Your task to perform on an android device: Show me popular videos on Youtube Image 0: 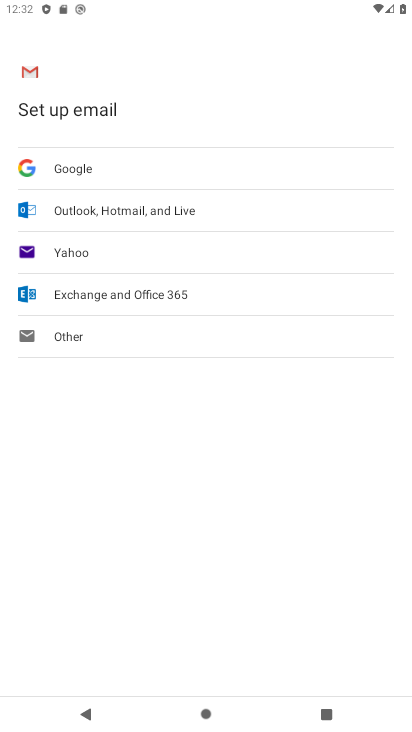
Step 0: press home button
Your task to perform on an android device: Show me popular videos on Youtube Image 1: 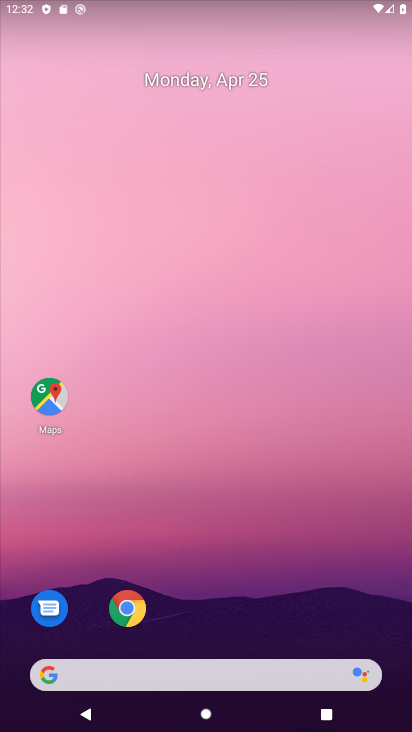
Step 1: drag from (267, 605) to (224, 197)
Your task to perform on an android device: Show me popular videos on Youtube Image 2: 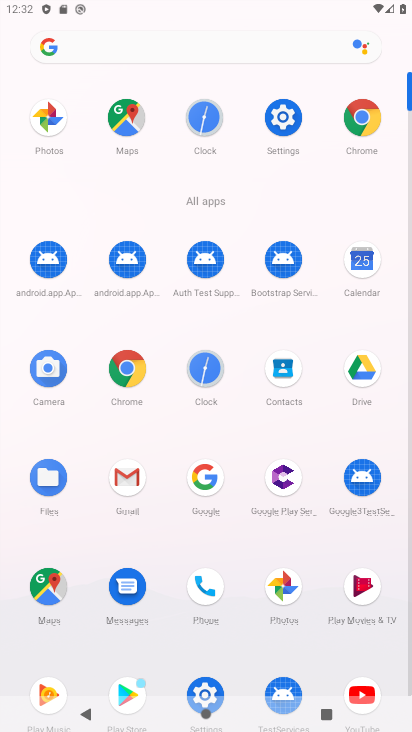
Step 2: click (371, 693)
Your task to perform on an android device: Show me popular videos on Youtube Image 3: 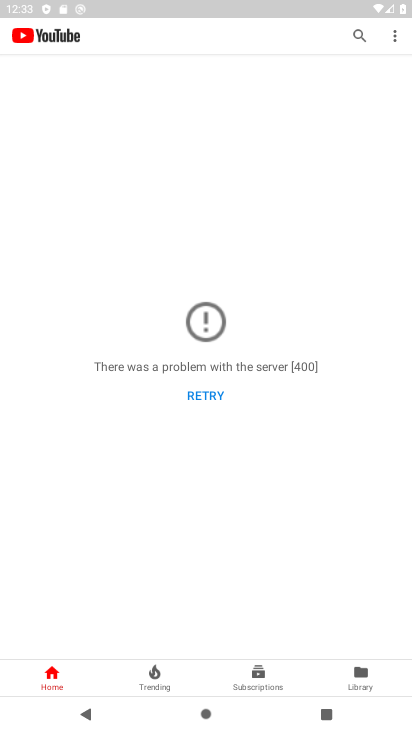
Step 3: task complete